Your task to perform on an android device: move a message to another label in the gmail app Image 0: 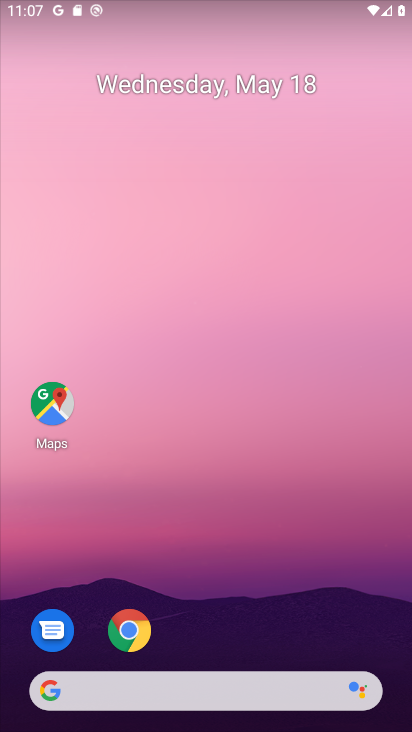
Step 0: drag from (265, 574) to (411, 614)
Your task to perform on an android device: move a message to another label in the gmail app Image 1: 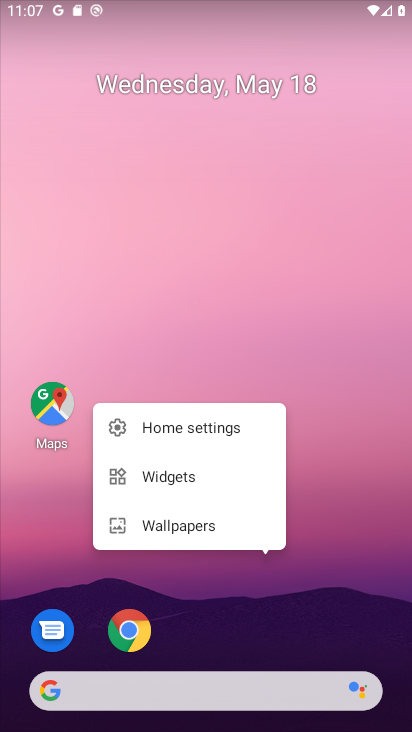
Step 1: drag from (351, 576) to (307, 71)
Your task to perform on an android device: move a message to another label in the gmail app Image 2: 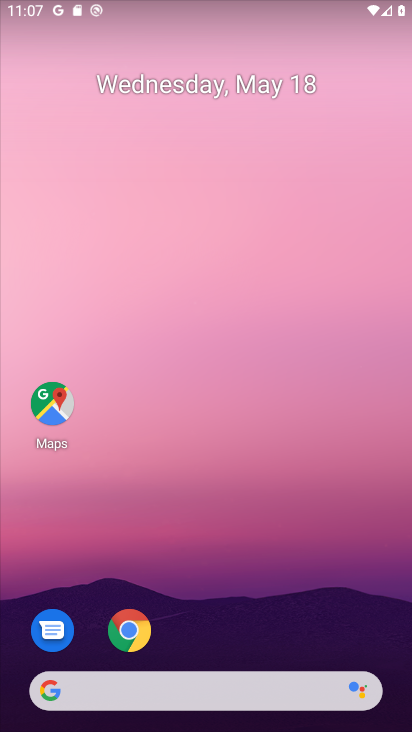
Step 2: drag from (335, 640) to (392, 234)
Your task to perform on an android device: move a message to another label in the gmail app Image 3: 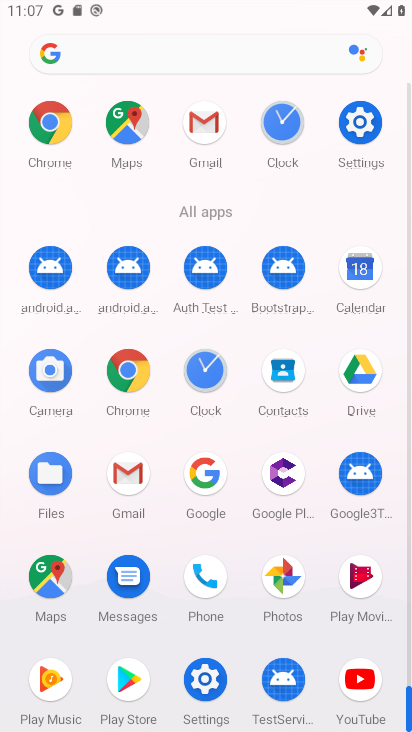
Step 3: click (142, 492)
Your task to perform on an android device: move a message to another label in the gmail app Image 4: 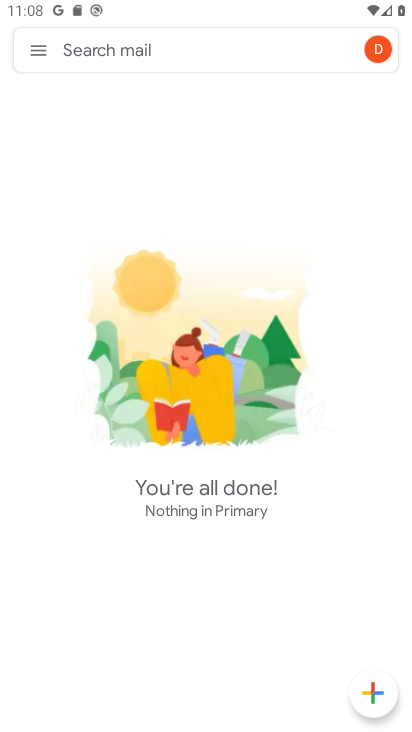
Step 4: task complete